Your task to perform on an android device: turn on airplane mode Image 0: 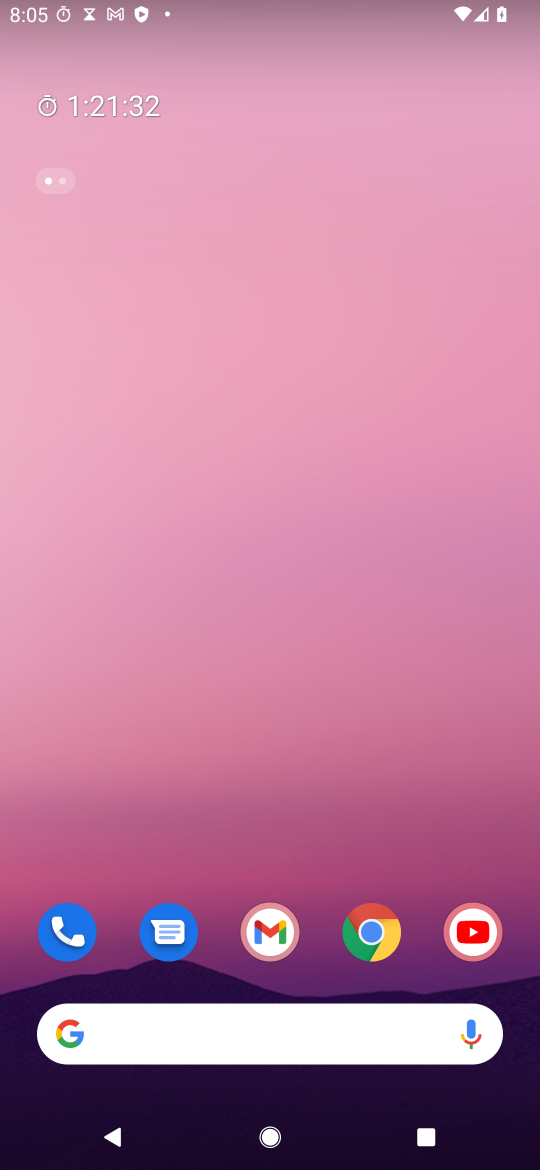
Step 0: drag from (272, 16) to (345, 848)
Your task to perform on an android device: turn on airplane mode Image 1: 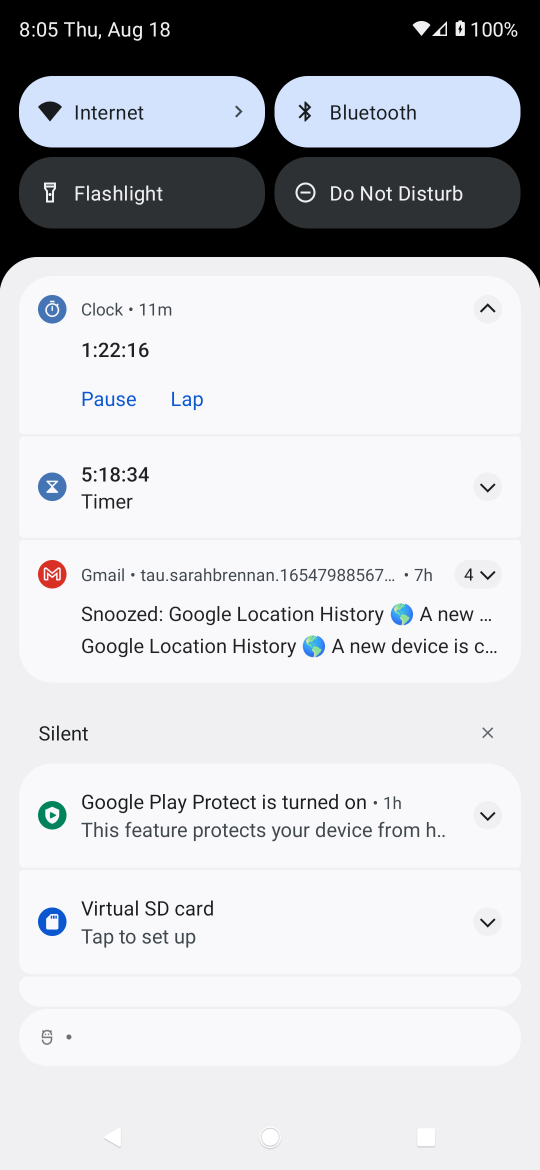
Step 1: drag from (258, 220) to (531, 855)
Your task to perform on an android device: turn on airplane mode Image 2: 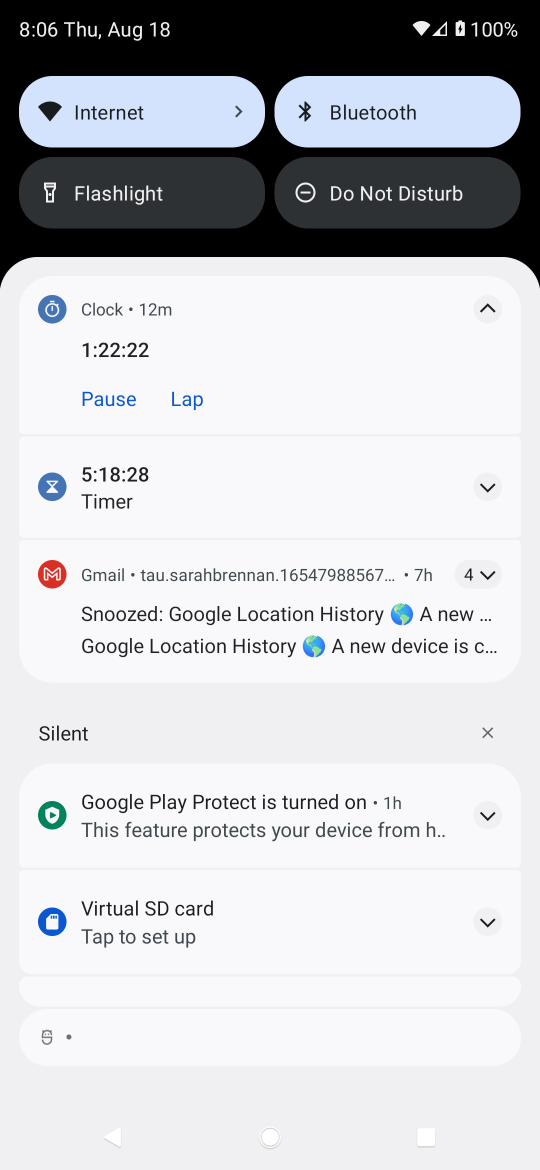
Step 2: drag from (272, 226) to (415, 1152)
Your task to perform on an android device: turn on airplane mode Image 3: 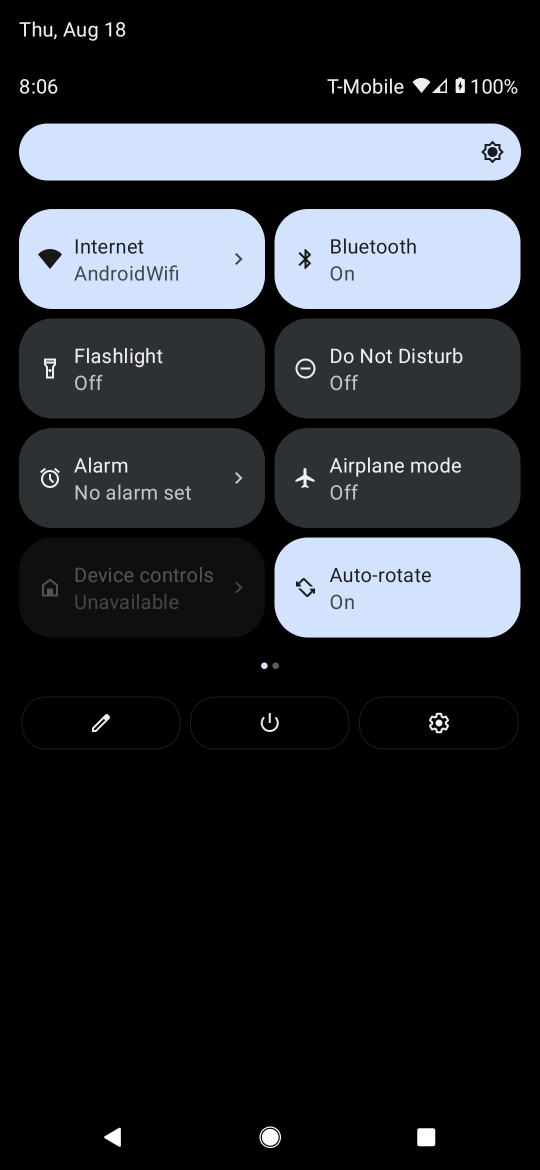
Step 3: click (368, 455)
Your task to perform on an android device: turn on airplane mode Image 4: 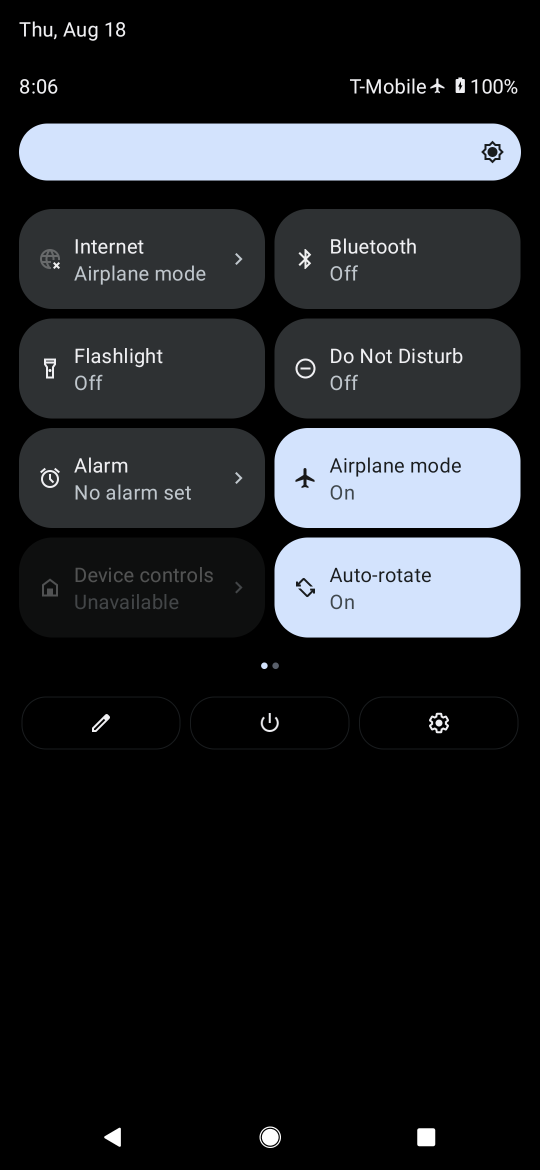
Step 4: task complete